Your task to perform on an android device: uninstall "Indeed Job Search" Image 0: 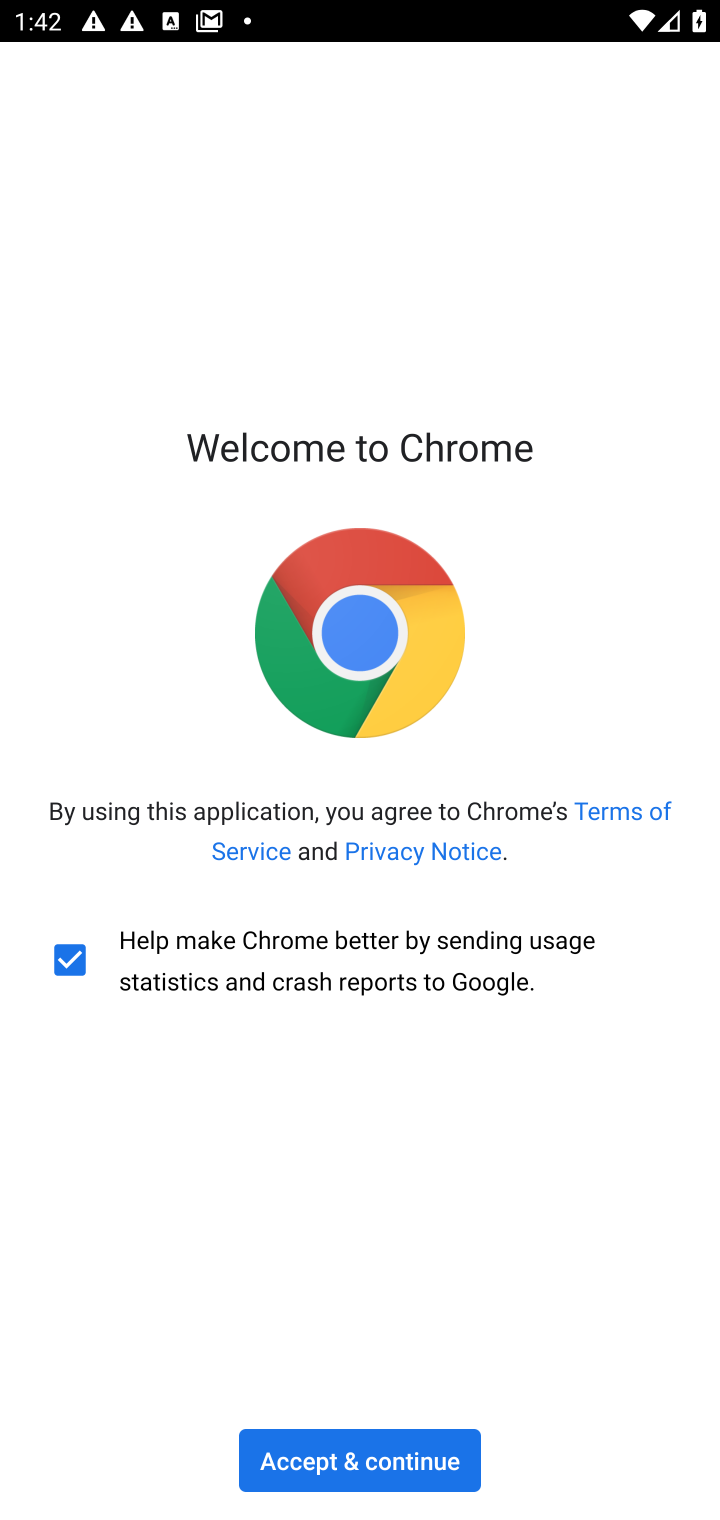
Step 0: press home button
Your task to perform on an android device: uninstall "Indeed Job Search" Image 1: 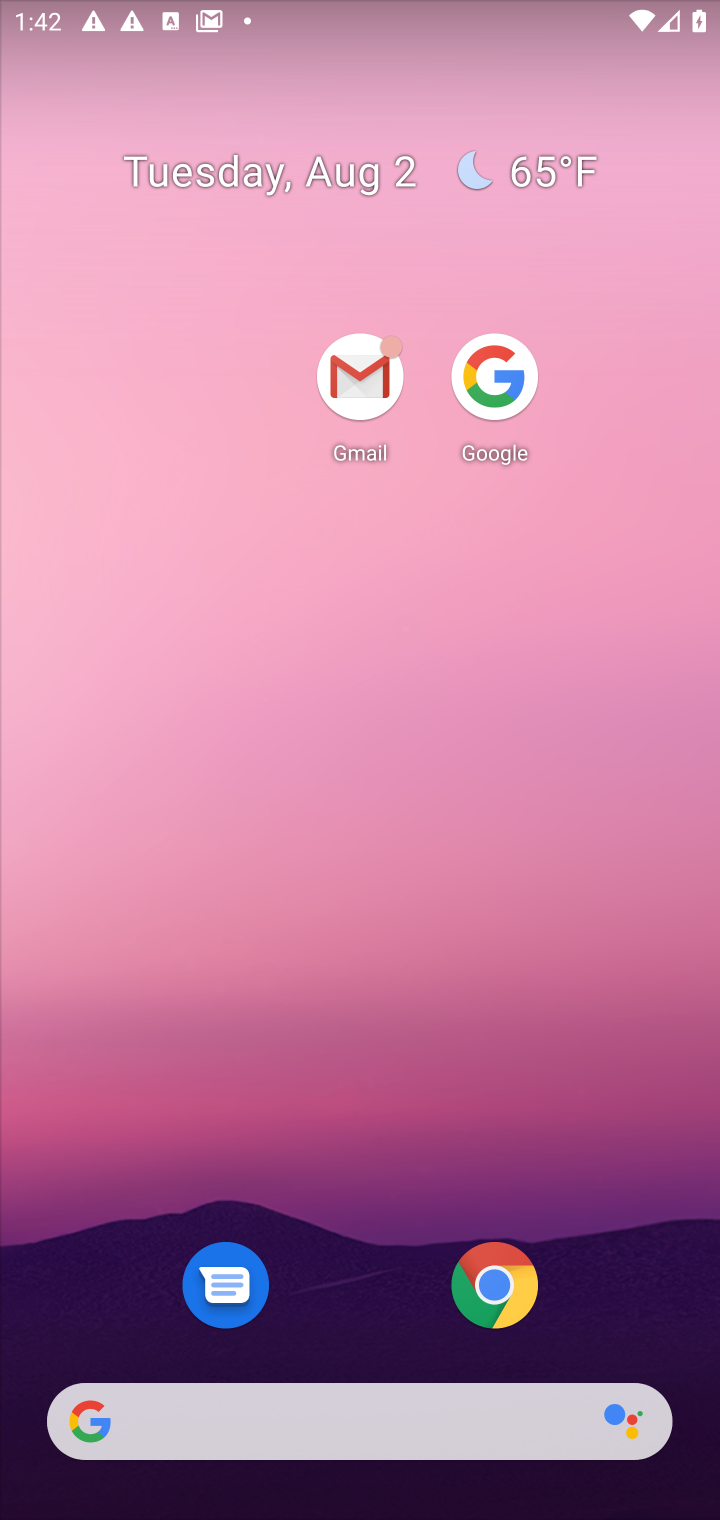
Step 1: click (464, 39)
Your task to perform on an android device: uninstall "Indeed Job Search" Image 2: 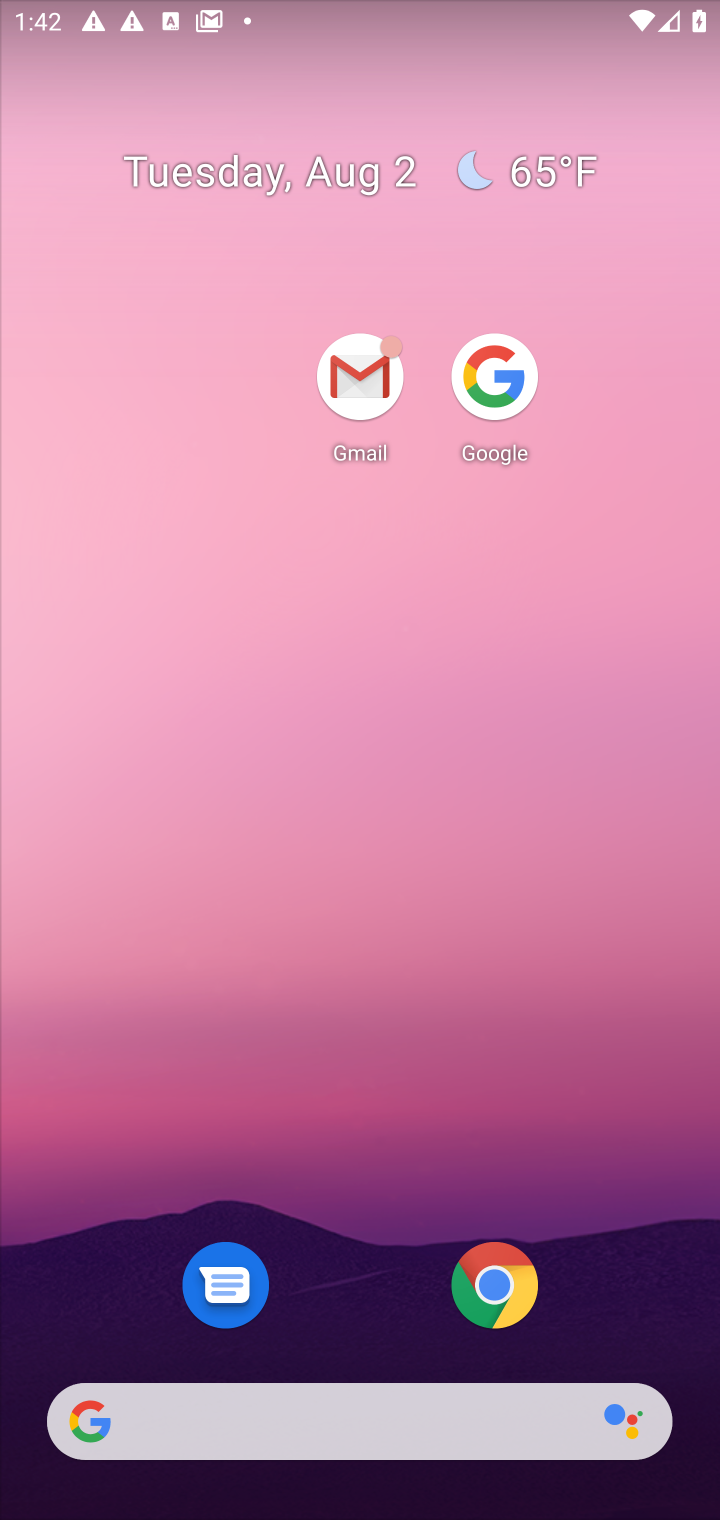
Step 2: drag from (394, 1211) to (504, 203)
Your task to perform on an android device: uninstall "Indeed Job Search" Image 3: 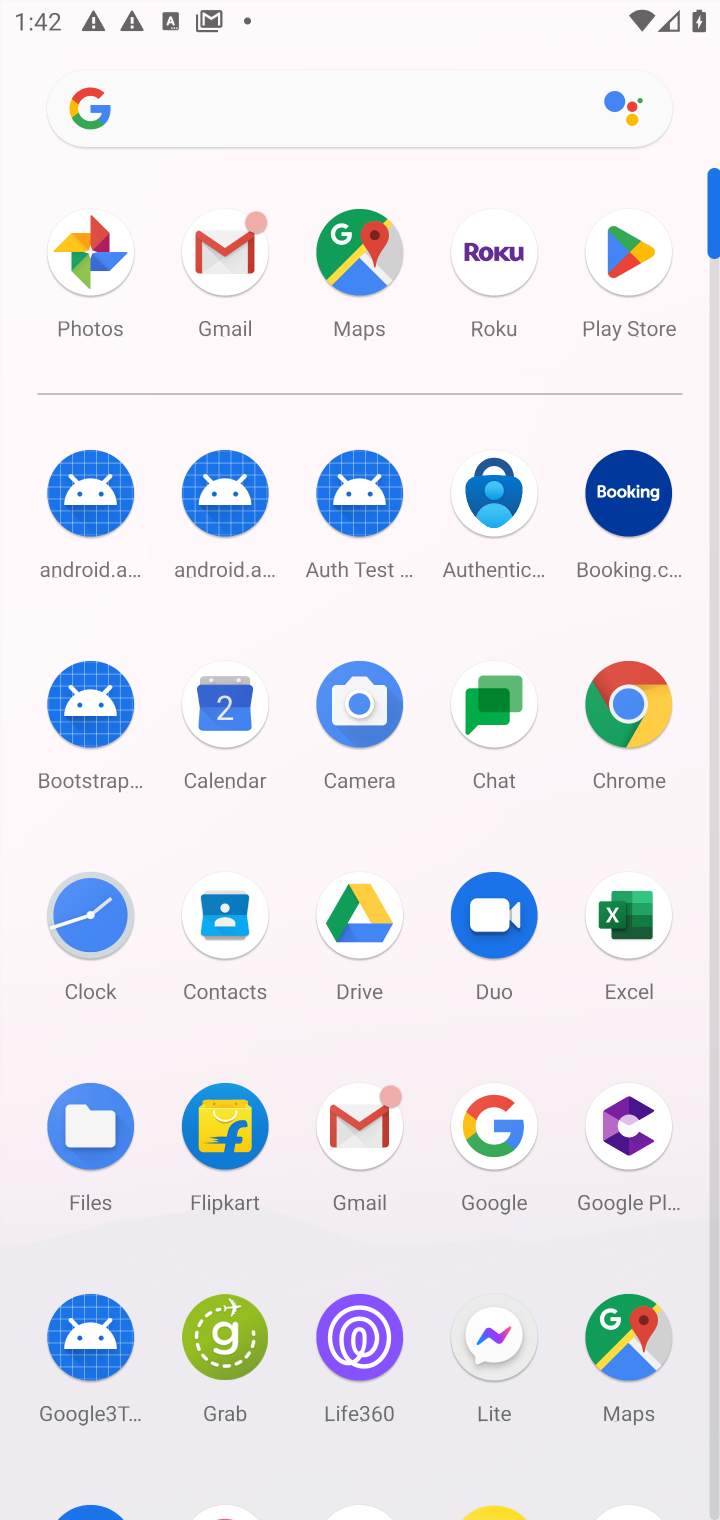
Step 3: drag from (423, 1263) to (469, 544)
Your task to perform on an android device: uninstall "Indeed Job Search" Image 4: 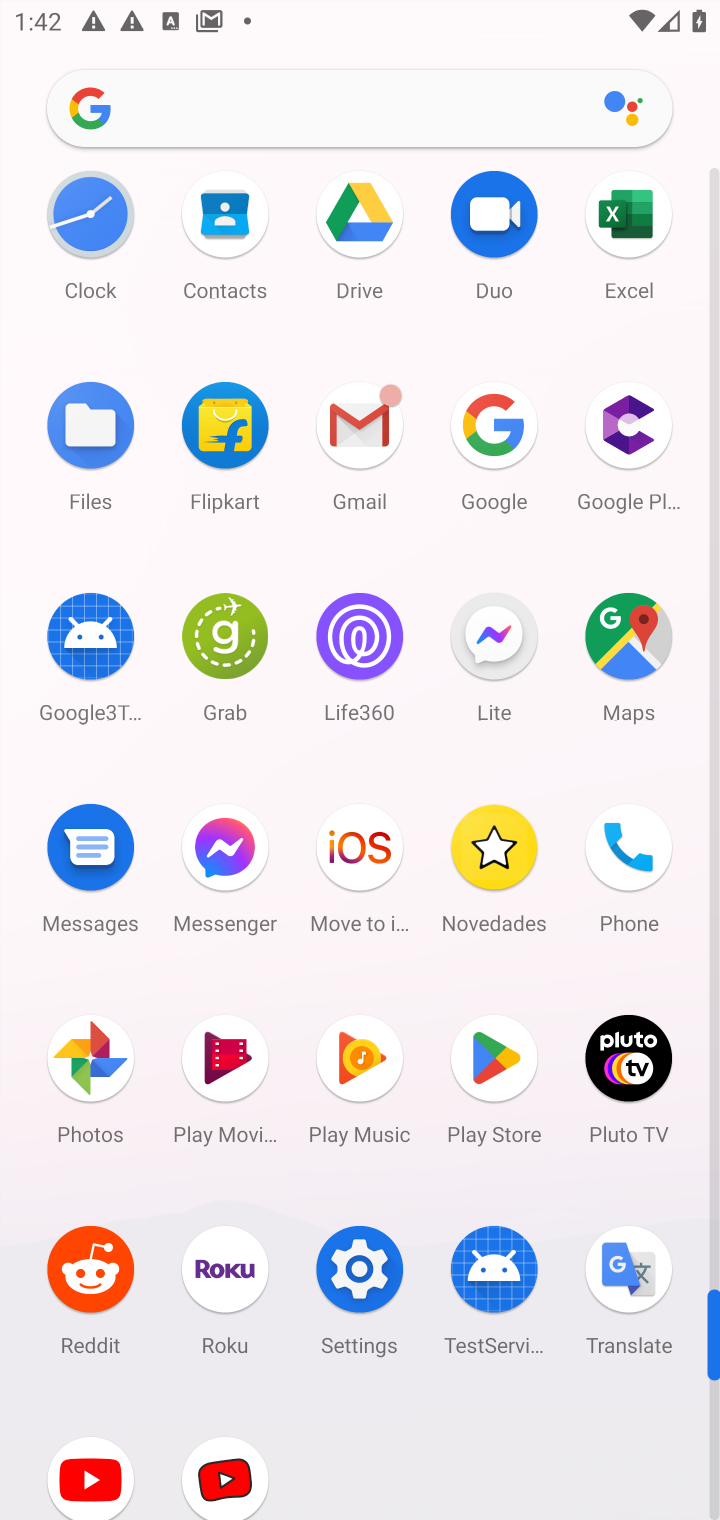
Step 4: click (506, 1051)
Your task to perform on an android device: uninstall "Indeed Job Search" Image 5: 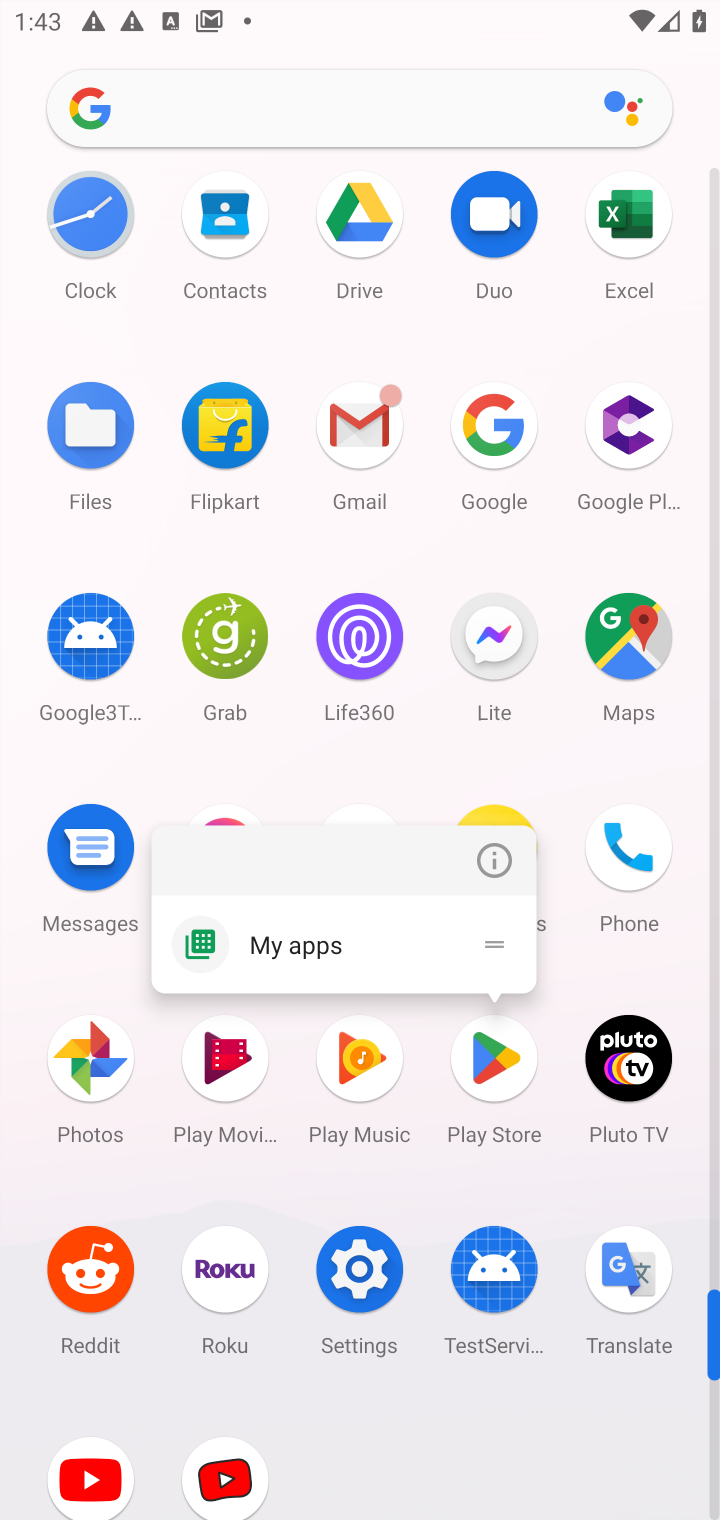
Step 5: click (482, 1063)
Your task to perform on an android device: uninstall "Indeed Job Search" Image 6: 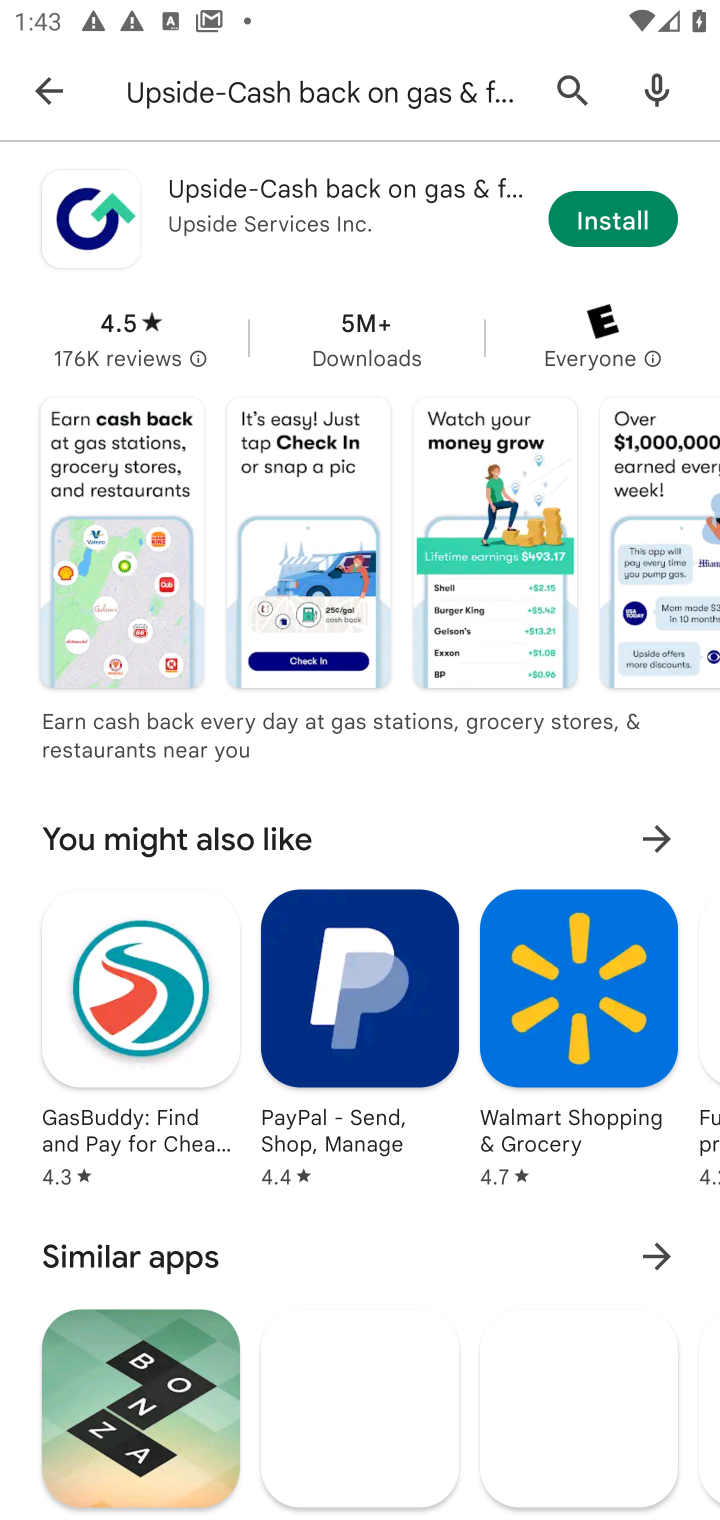
Step 6: click (366, 85)
Your task to perform on an android device: uninstall "Indeed Job Search" Image 7: 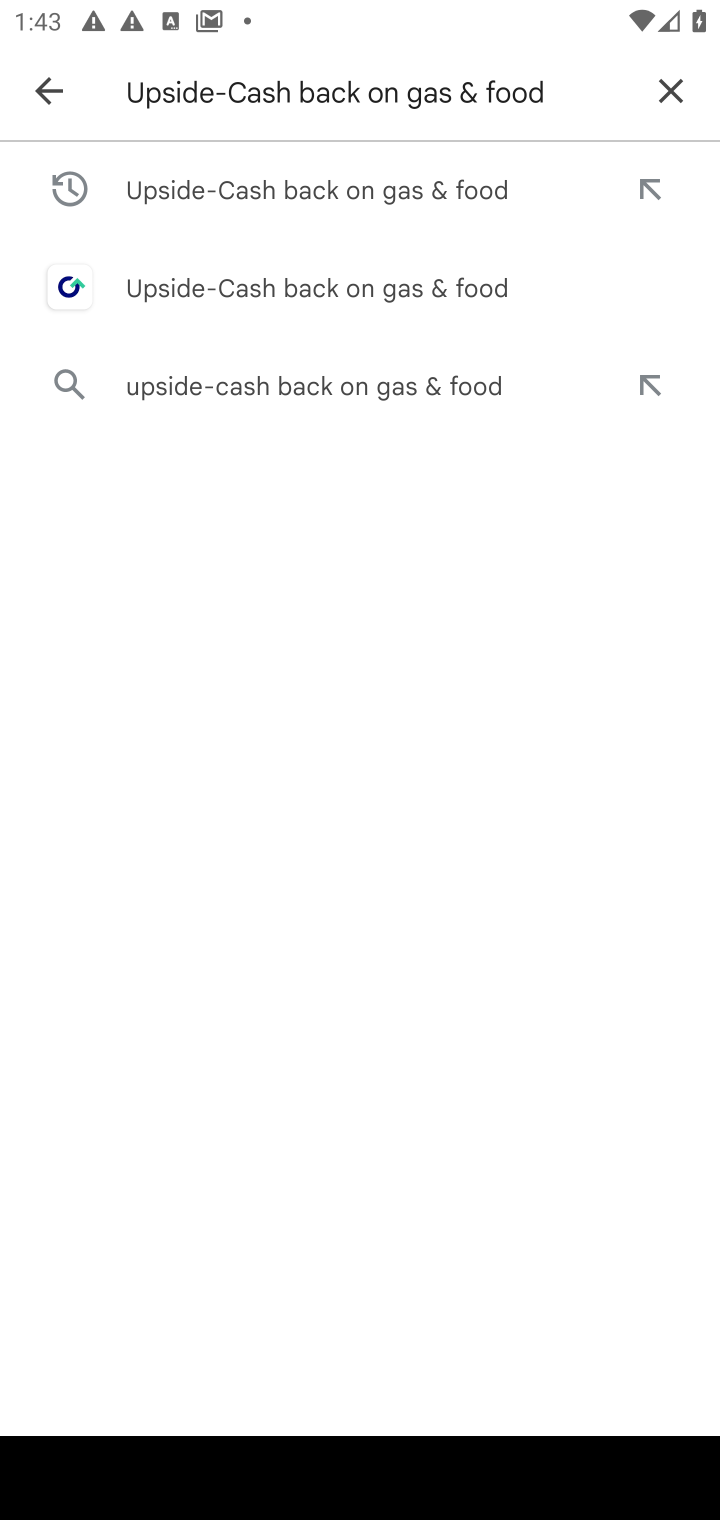
Step 7: click (673, 85)
Your task to perform on an android device: uninstall "Indeed Job Search" Image 8: 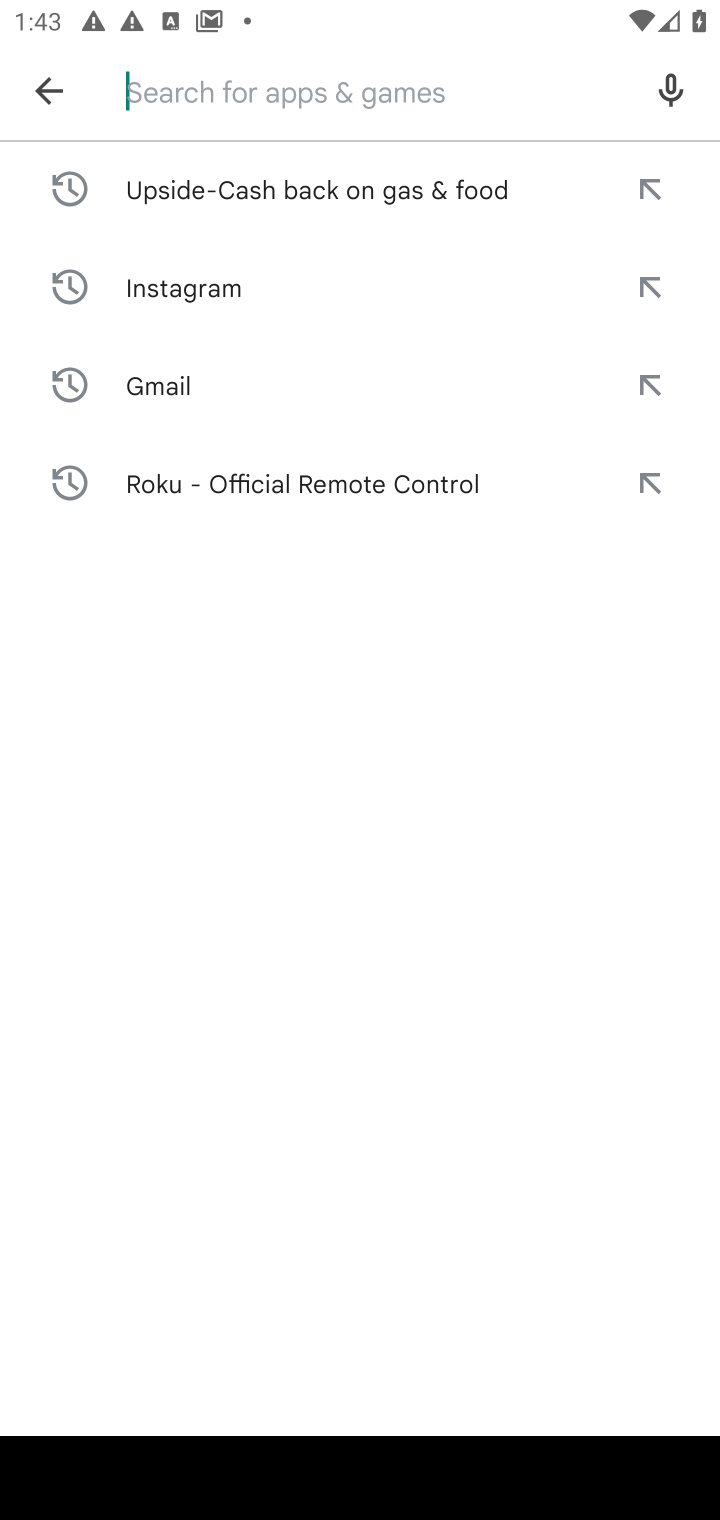
Step 8: type "Indeed Job Search"
Your task to perform on an android device: uninstall "Indeed Job Search" Image 9: 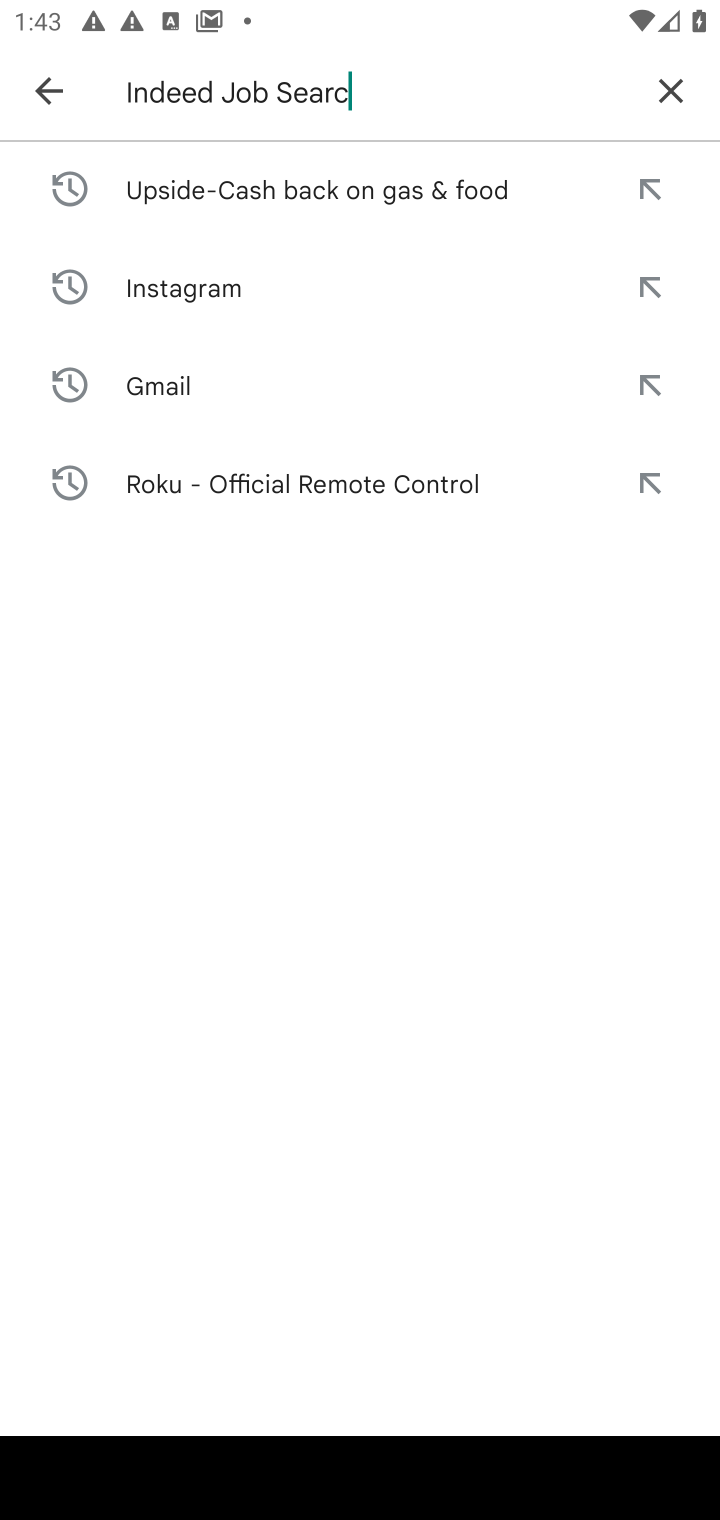
Step 9: type ""
Your task to perform on an android device: uninstall "Indeed Job Search" Image 10: 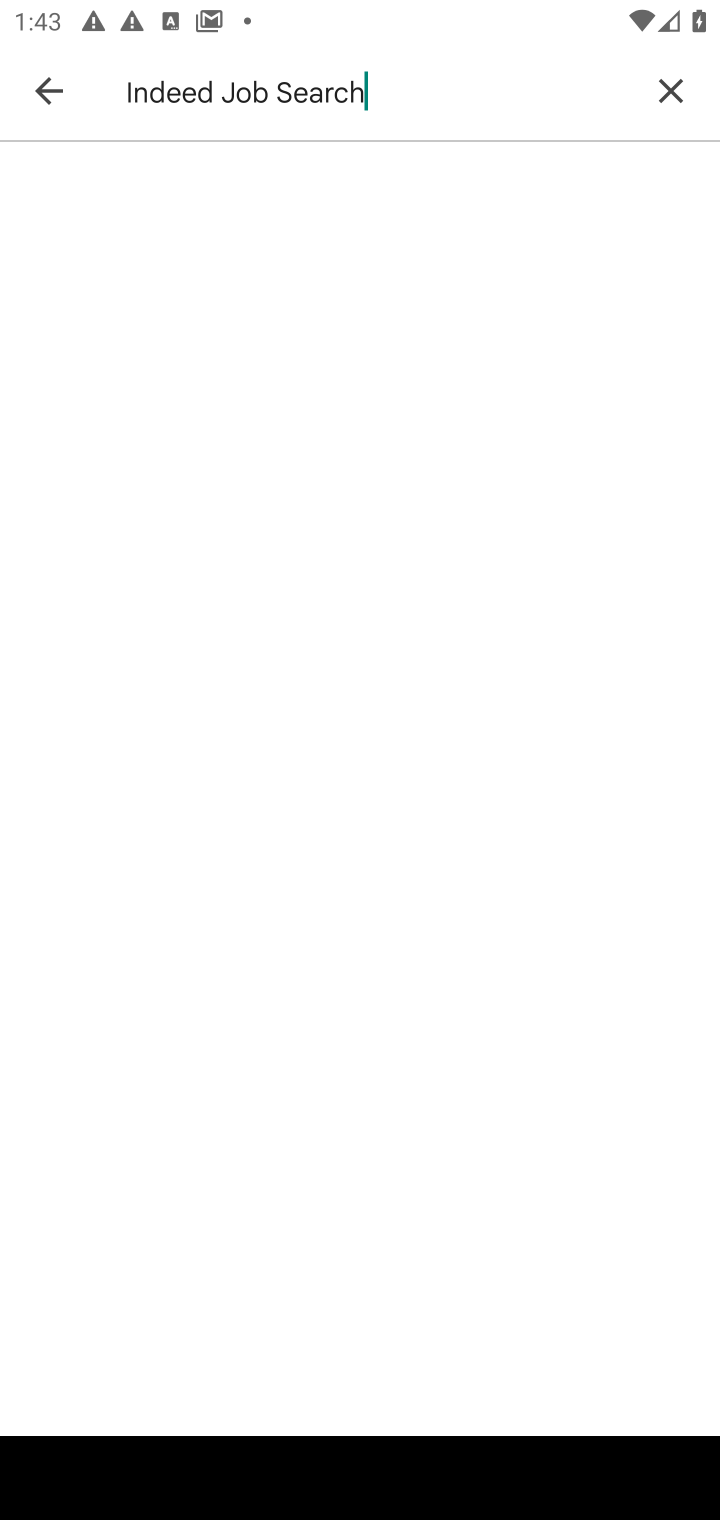
Step 10: press enter
Your task to perform on an android device: uninstall "Indeed Job Search" Image 11: 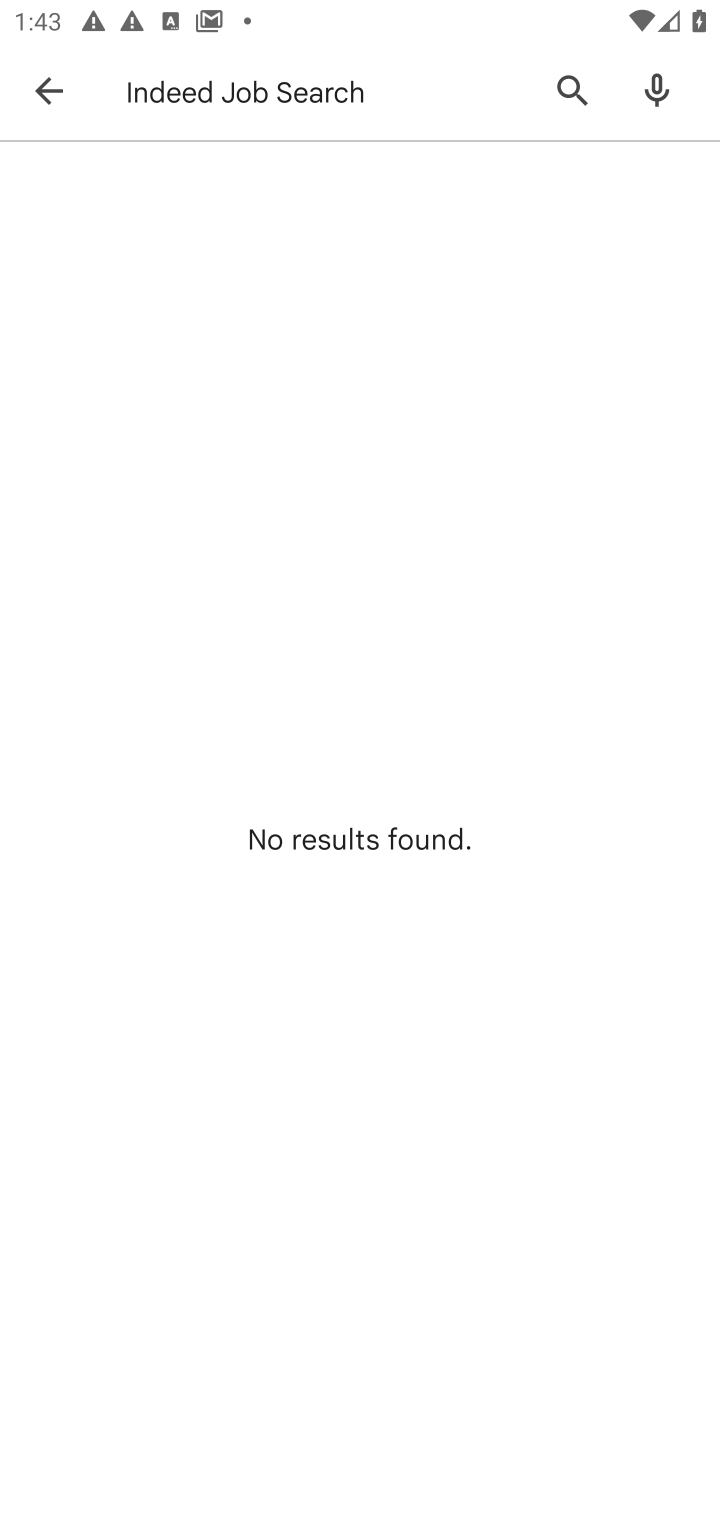
Step 11: task complete